Your task to perform on an android device: add a contact in the contacts app Image 0: 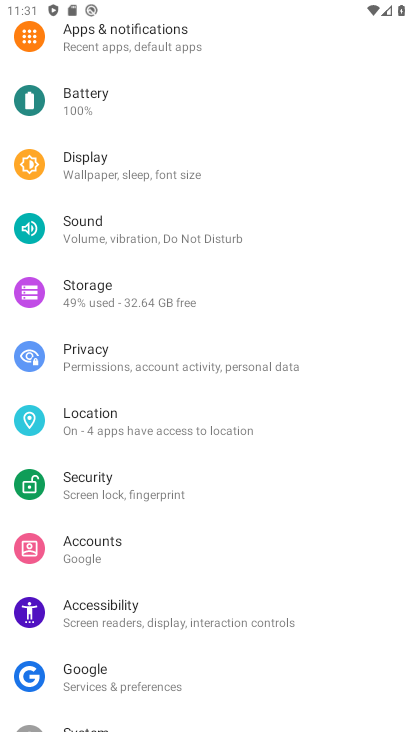
Step 0: press home button
Your task to perform on an android device: add a contact in the contacts app Image 1: 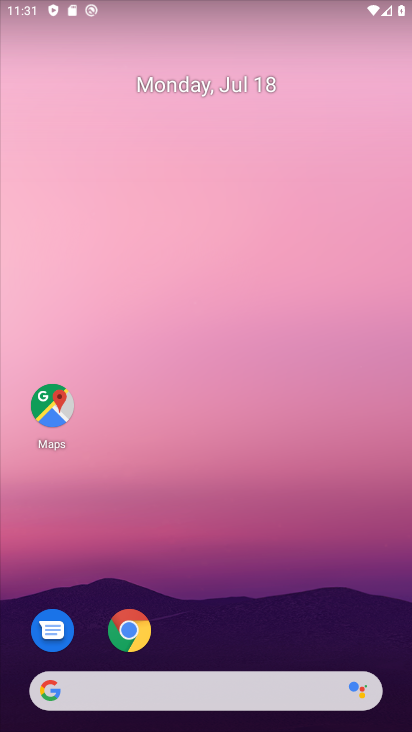
Step 1: click (208, 34)
Your task to perform on an android device: add a contact in the contacts app Image 2: 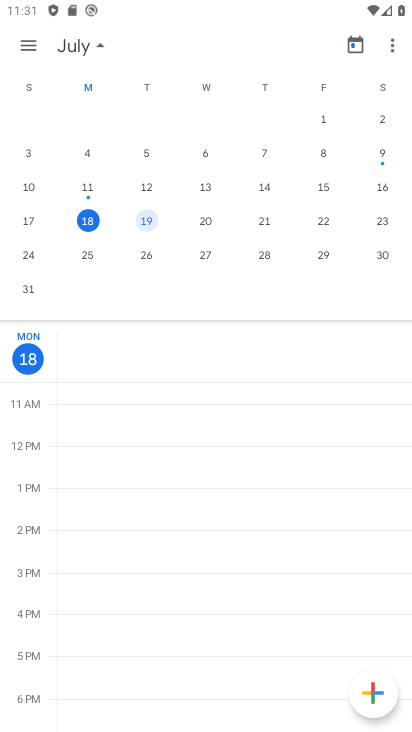
Step 2: press home button
Your task to perform on an android device: add a contact in the contacts app Image 3: 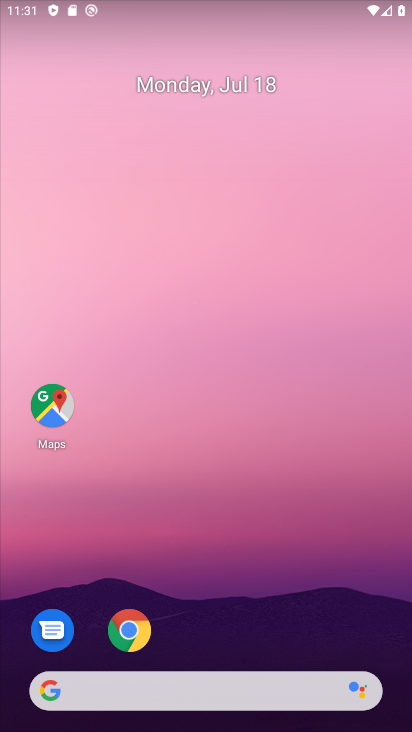
Step 3: drag from (230, 356) to (219, 98)
Your task to perform on an android device: add a contact in the contacts app Image 4: 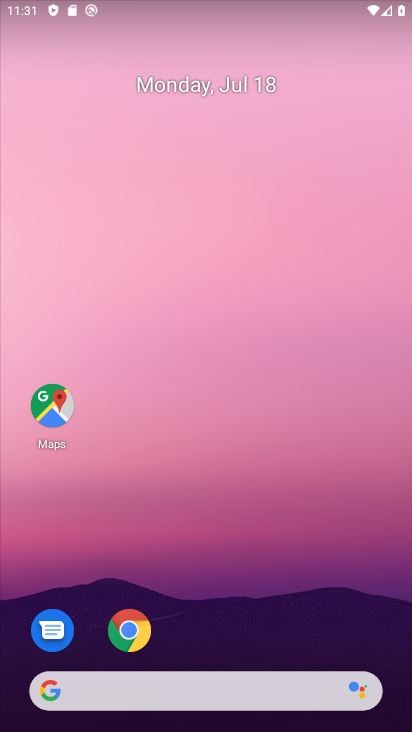
Step 4: drag from (203, 635) to (218, 133)
Your task to perform on an android device: add a contact in the contacts app Image 5: 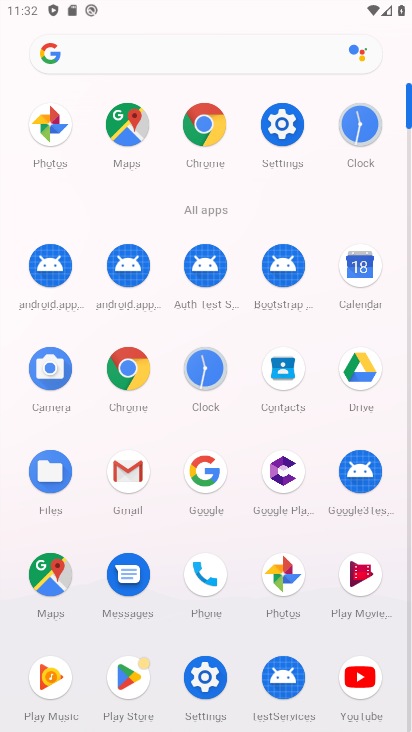
Step 5: click (278, 375)
Your task to perform on an android device: add a contact in the contacts app Image 6: 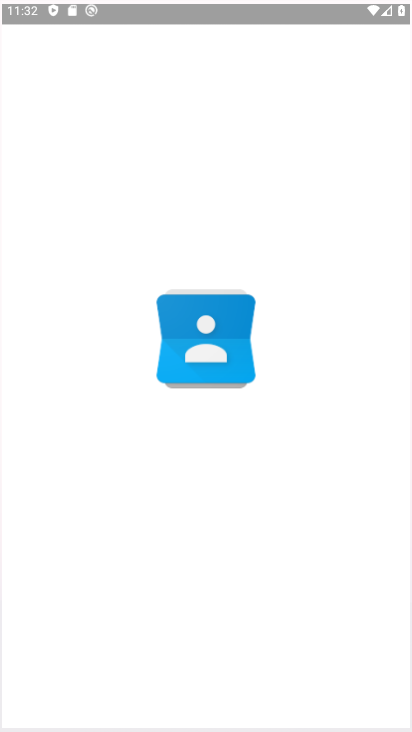
Step 6: click (278, 375)
Your task to perform on an android device: add a contact in the contacts app Image 7: 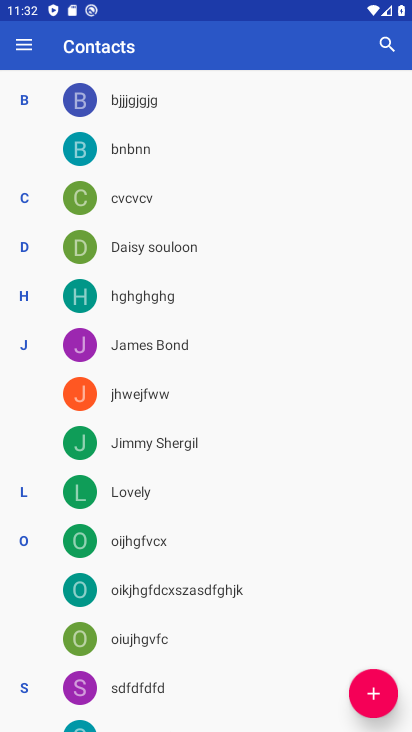
Step 7: click (376, 701)
Your task to perform on an android device: add a contact in the contacts app Image 8: 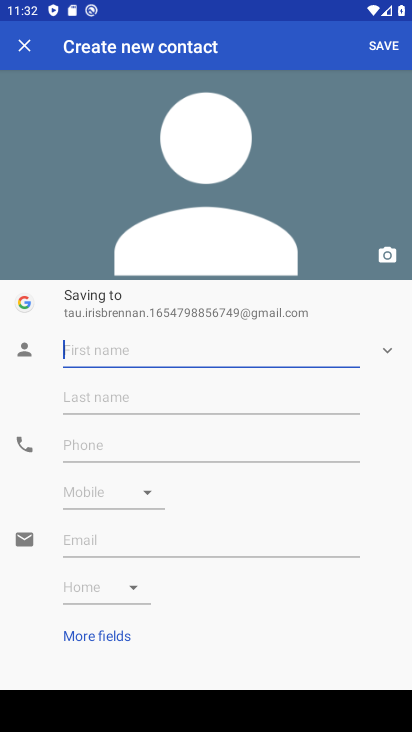
Step 8: type "oijuhgvc"
Your task to perform on an android device: add a contact in the contacts app Image 9: 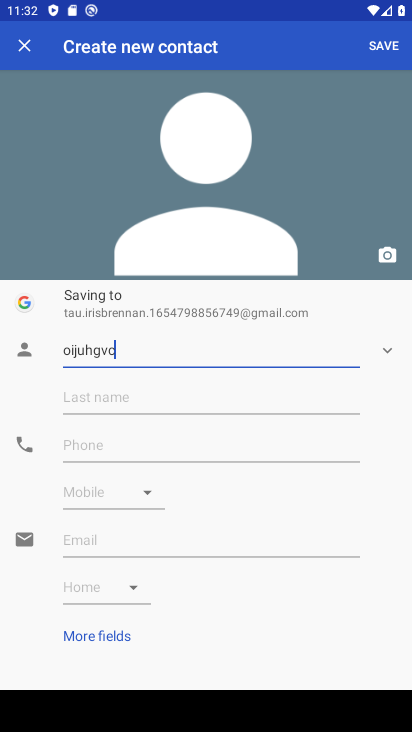
Step 9: click (143, 447)
Your task to perform on an android device: add a contact in the contacts app Image 10: 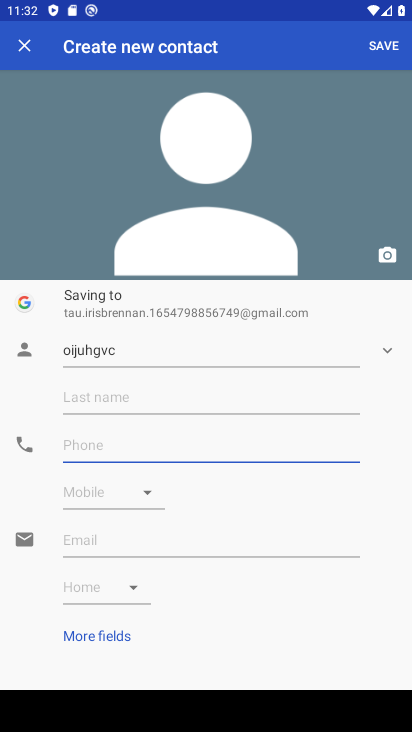
Step 10: type "34567890"
Your task to perform on an android device: add a contact in the contacts app Image 11: 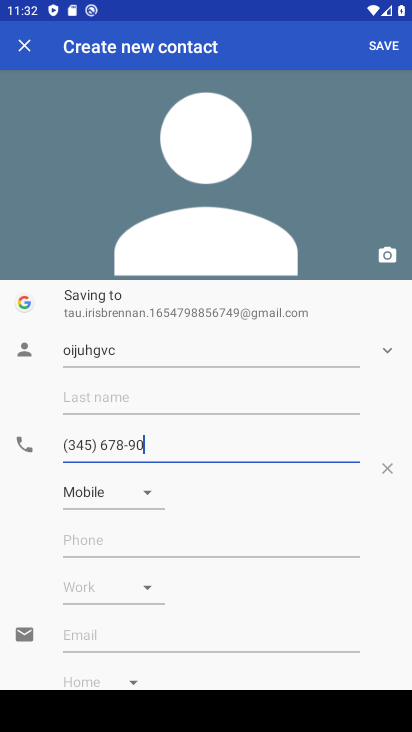
Step 11: click (382, 55)
Your task to perform on an android device: add a contact in the contacts app Image 12: 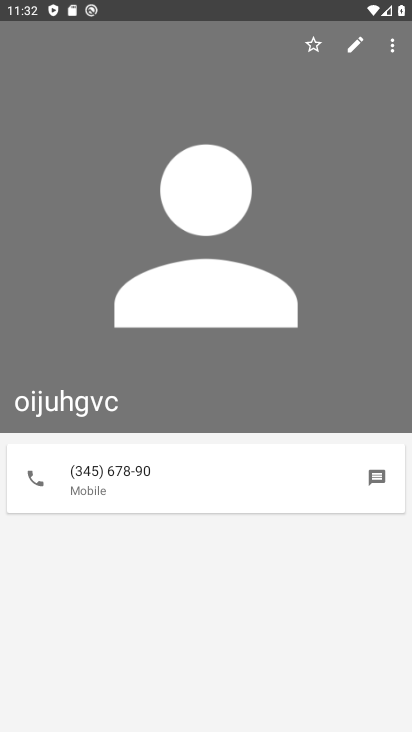
Step 12: task complete